Your task to perform on an android device: open chrome and create a bookmark for the current page Image 0: 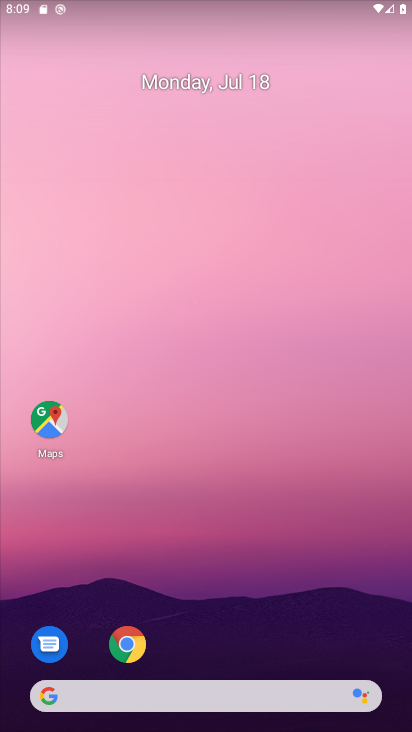
Step 0: click (129, 637)
Your task to perform on an android device: open chrome and create a bookmark for the current page Image 1: 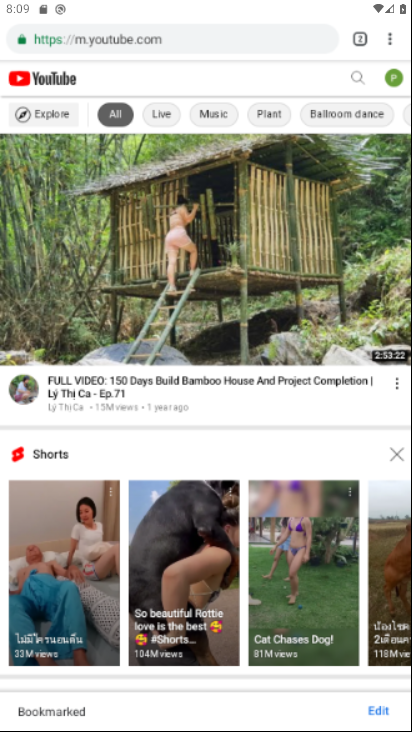
Step 1: click (398, 39)
Your task to perform on an android device: open chrome and create a bookmark for the current page Image 2: 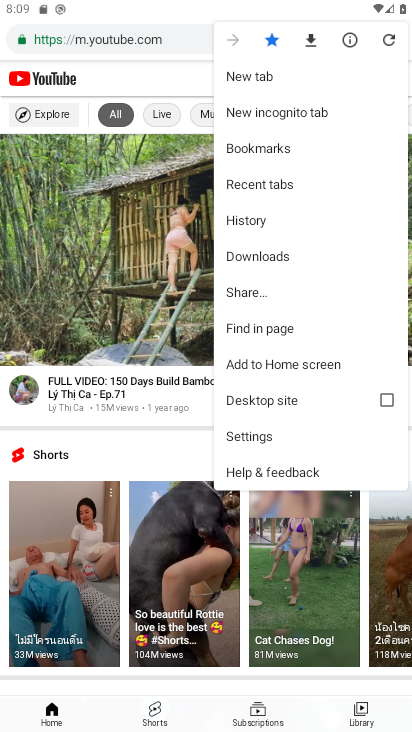
Step 2: task complete